Your task to perform on an android device: empty trash in the gmail app Image 0: 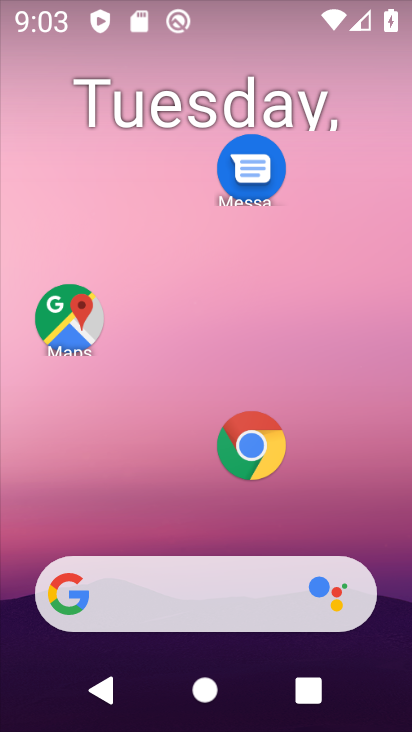
Step 0: drag from (177, 422) to (266, 52)
Your task to perform on an android device: empty trash in the gmail app Image 1: 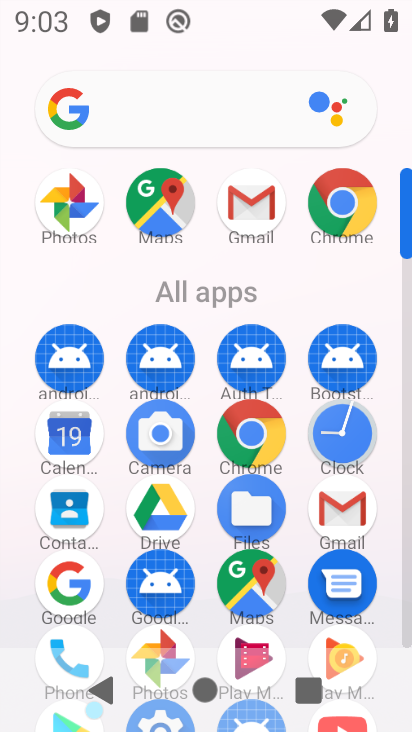
Step 1: click (256, 209)
Your task to perform on an android device: empty trash in the gmail app Image 2: 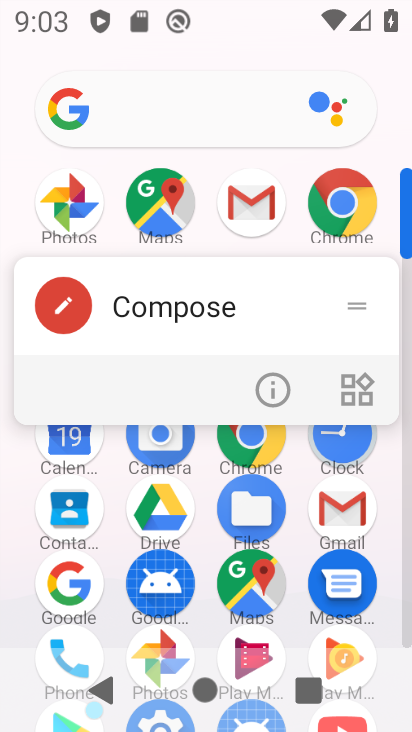
Step 2: click (257, 198)
Your task to perform on an android device: empty trash in the gmail app Image 3: 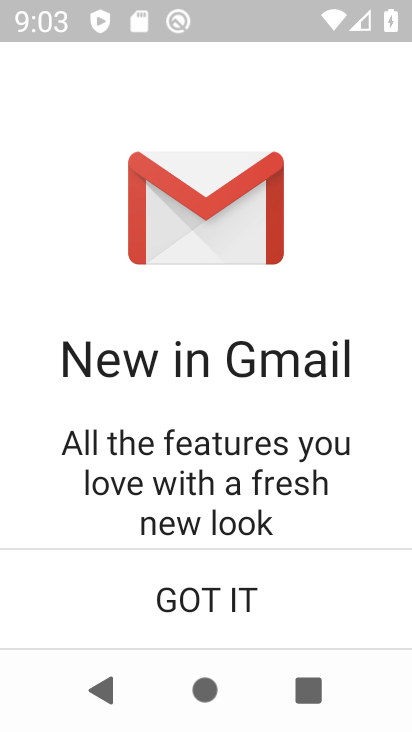
Step 3: click (203, 562)
Your task to perform on an android device: empty trash in the gmail app Image 4: 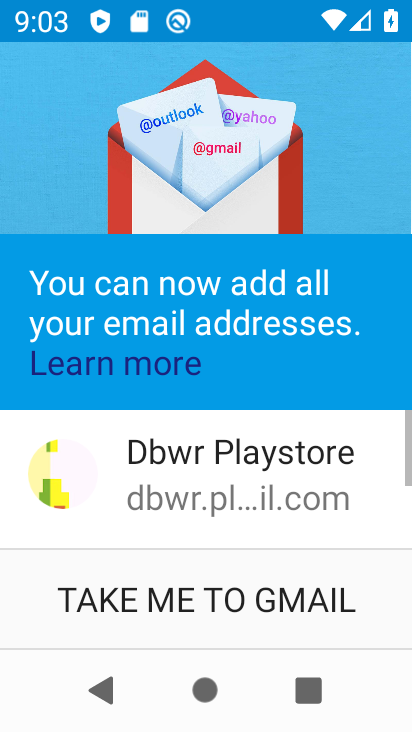
Step 4: click (189, 593)
Your task to perform on an android device: empty trash in the gmail app Image 5: 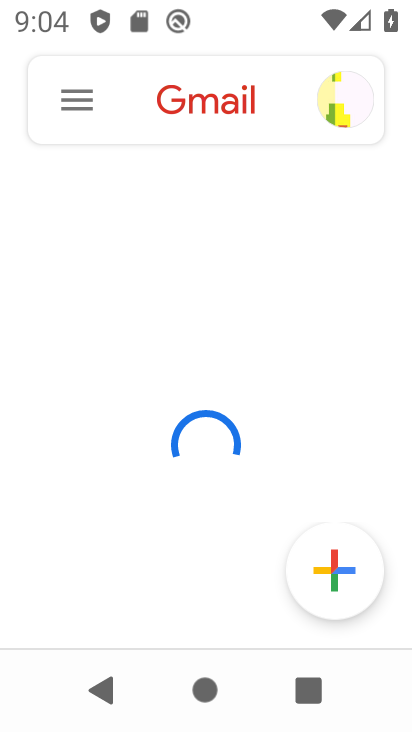
Step 5: click (84, 100)
Your task to perform on an android device: empty trash in the gmail app Image 6: 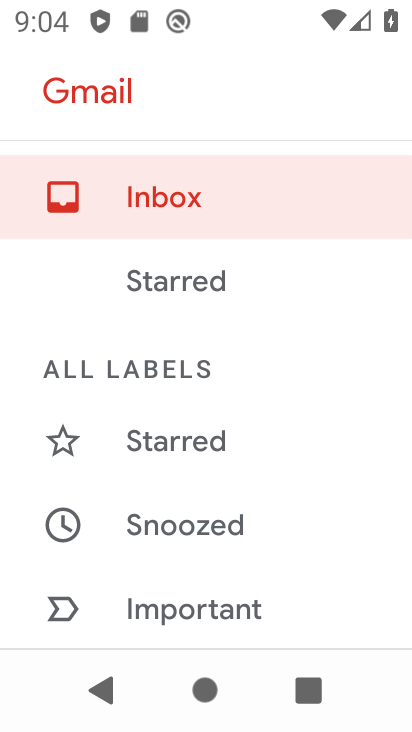
Step 6: drag from (180, 585) to (229, 132)
Your task to perform on an android device: empty trash in the gmail app Image 7: 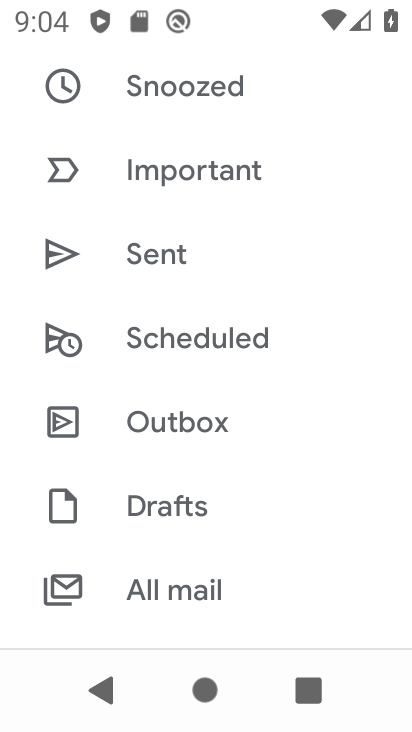
Step 7: drag from (174, 567) to (260, 120)
Your task to perform on an android device: empty trash in the gmail app Image 8: 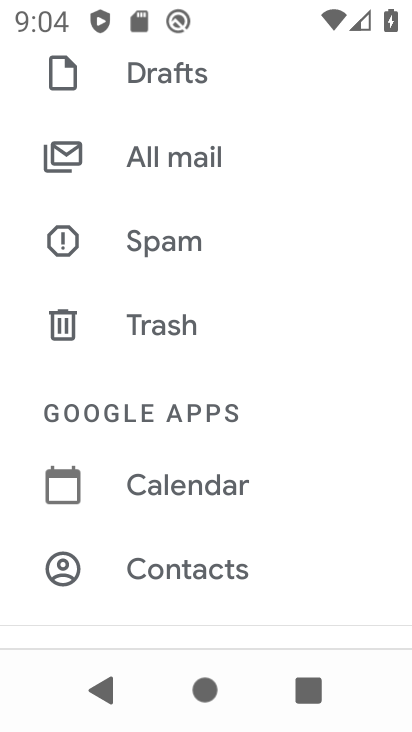
Step 8: click (172, 320)
Your task to perform on an android device: empty trash in the gmail app Image 9: 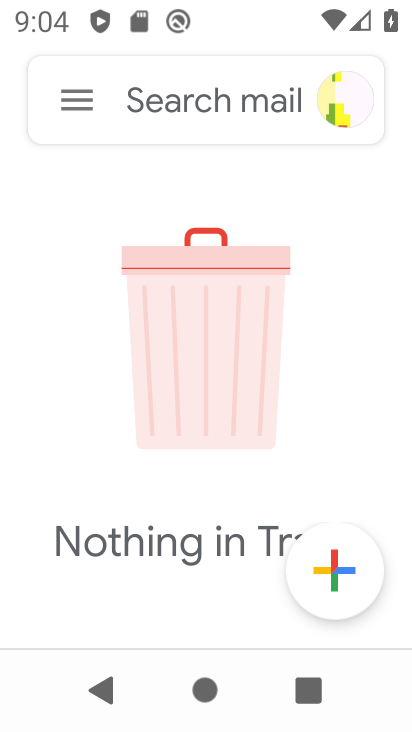
Step 9: task complete